Your task to perform on an android device: toggle translation in the chrome app Image 0: 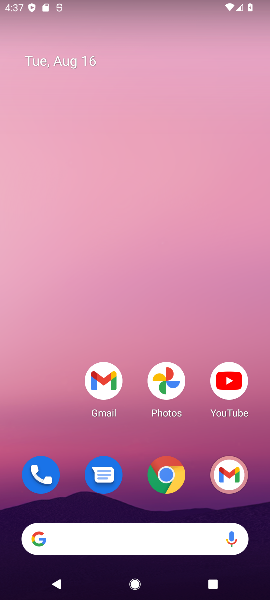
Step 0: drag from (204, 489) to (107, 17)
Your task to perform on an android device: toggle translation in the chrome app Image 1: 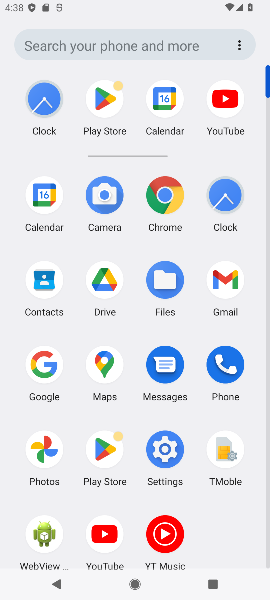
Step 1: click (171, 202)
Your task to perform on an android device: toggle translation in the chrome app Image 2: 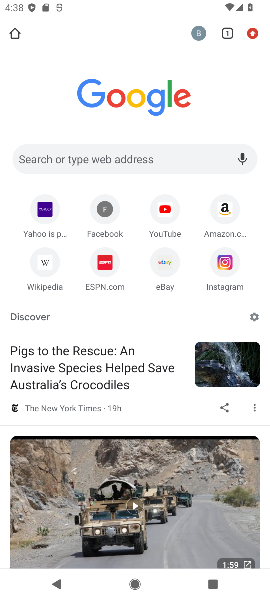
Step 2: click (252, 29)
Your task to perform on an android device: toggle translation in the chrome app Image 3: 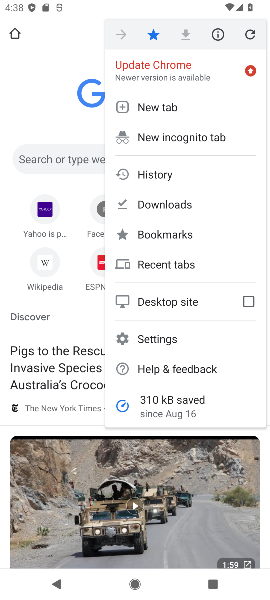
Step 3: click (172, 348)
Your task to perform on an android device: toggle translation in the chrome app Image 4: 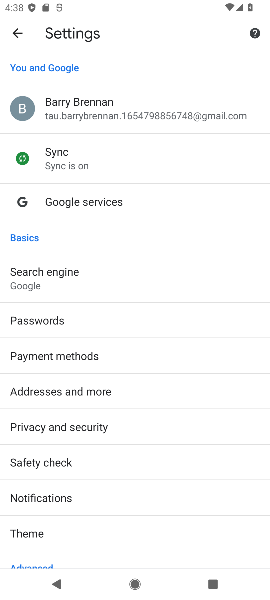
Step 4: drag from (79, 524) to (131, 146)
Your task to perform on an android device: toggle translation in the chrome app Image 5: 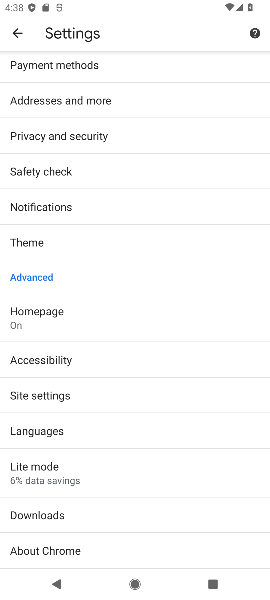
Step 5: click (77, 433)
Your task to perform on an android device: toggle translation in the chrome app Image 6: 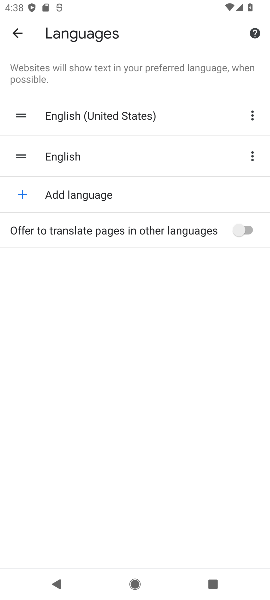
Step 6: click (230, 234)
Your task to perform on an android device: toggle translation in the chrome app Image 7: 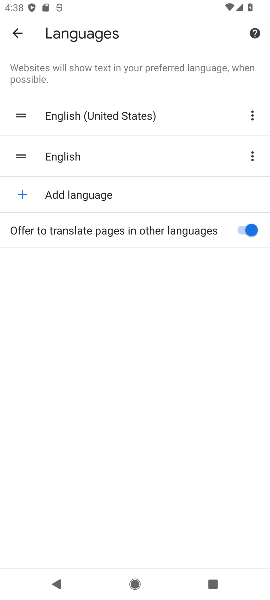
Step 7: task complete